Your task to perform on an android device: Open eBay Image 0: 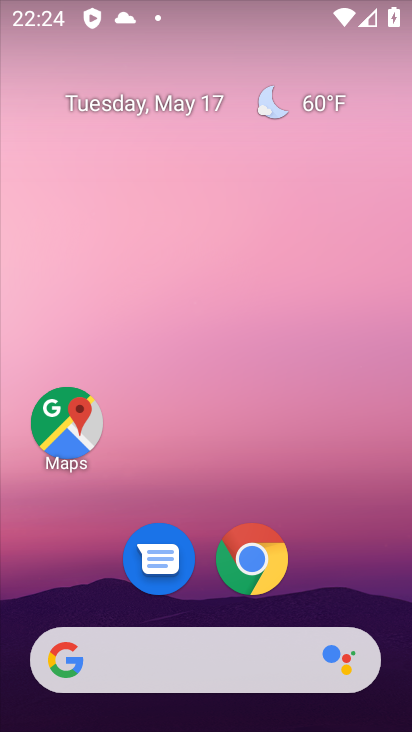
Step 0: click (247, 551)
Your task to perform on an android device: Open eBay Image 1: 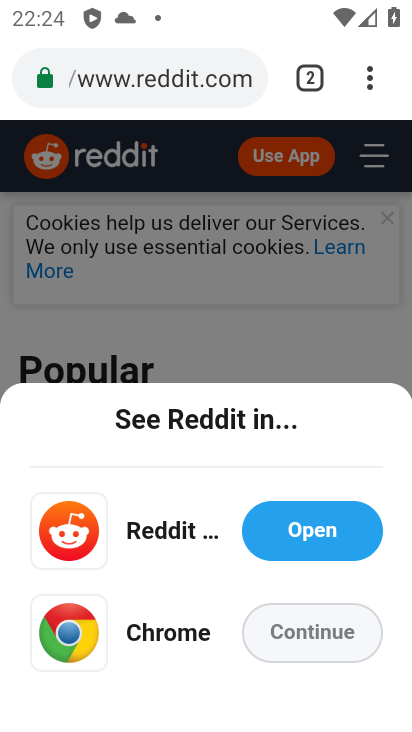
Step 1: click (163, 77)
Your task to perform on an android device: Open eBay Image 2: 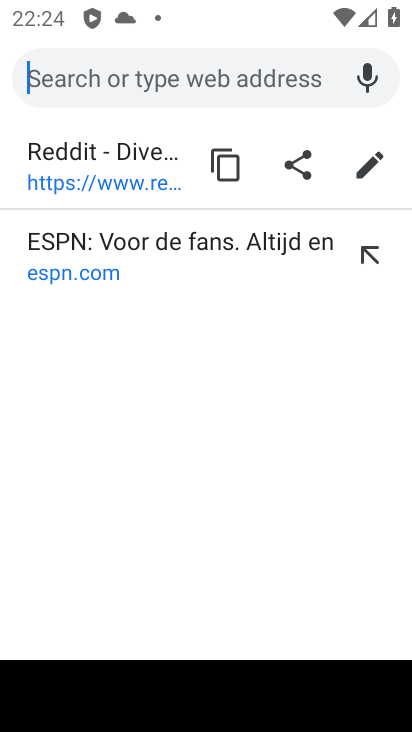
Step 2: type "ebay"
Your task to perform on an android device: Open eBay Image 3: 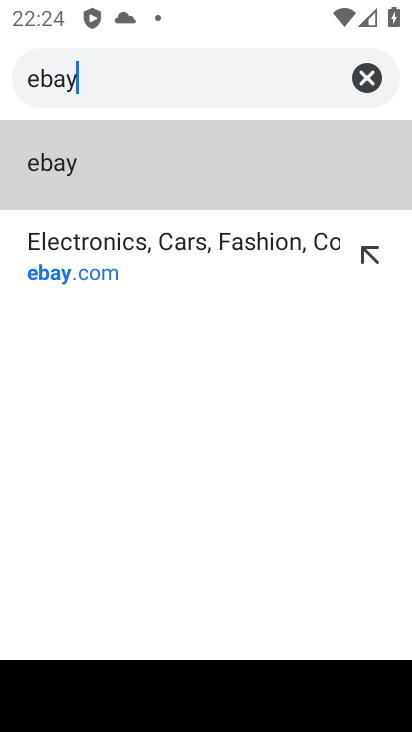
Step 3: click (60, 277)
Your task to perform on an android device: Open eBay Image 4: 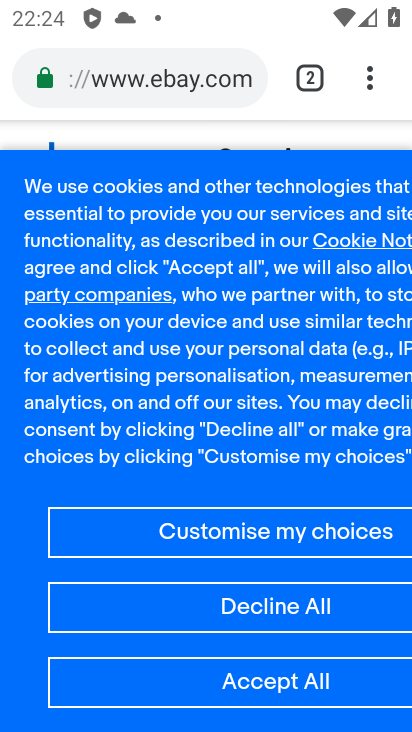
Step 4: task complete